Your task to perform on an android device: turn off translation in the chrome app Image 0: 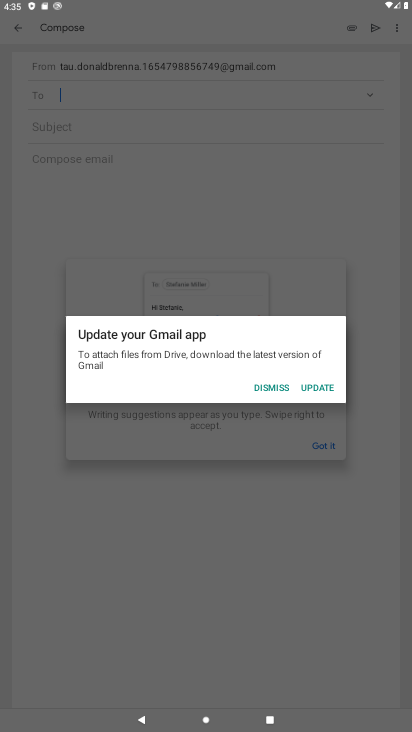
Step 0: press home button
Your task to perform on an android device: turn off translation in the chrome app Image 1: 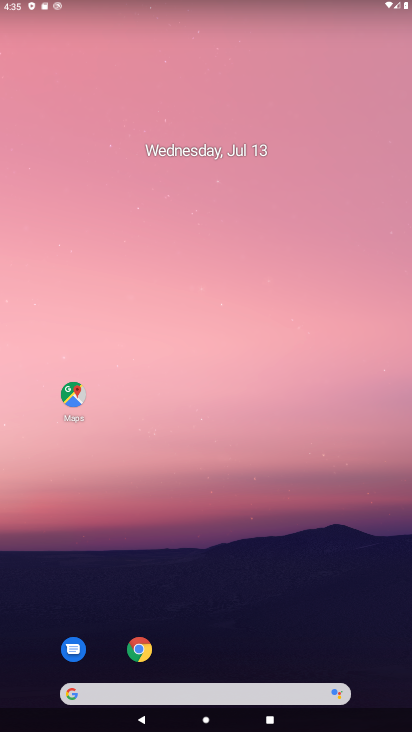
Step 1: drag from (334, 615) to (250, 138)
Your task to perform on an android device: turn off translation in the chrome app Image 2: 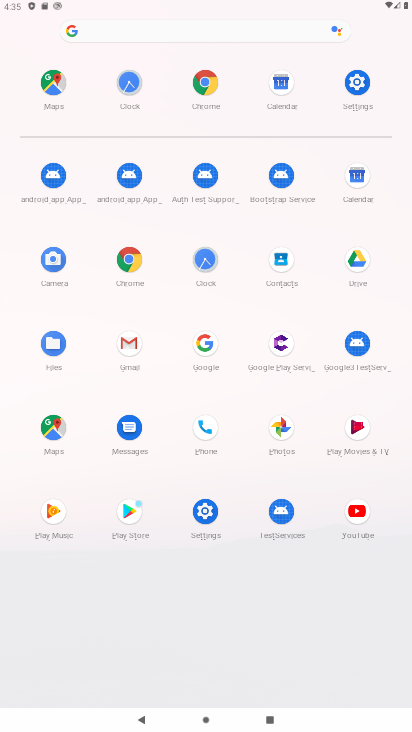
Step 2: click (197, 85)
Your task to perform on an android device: turn off translation in the chrome app Image 3: 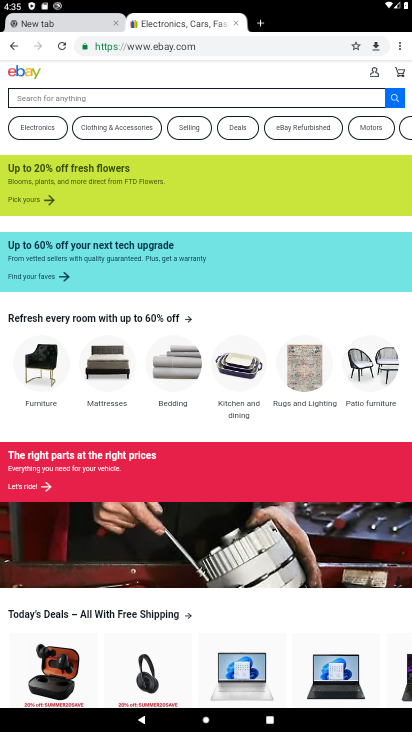
Step 3: drag from (402, 41) to (311, 305)
Your task to perform on an android device: turn off translation in the chrome app Image 4: 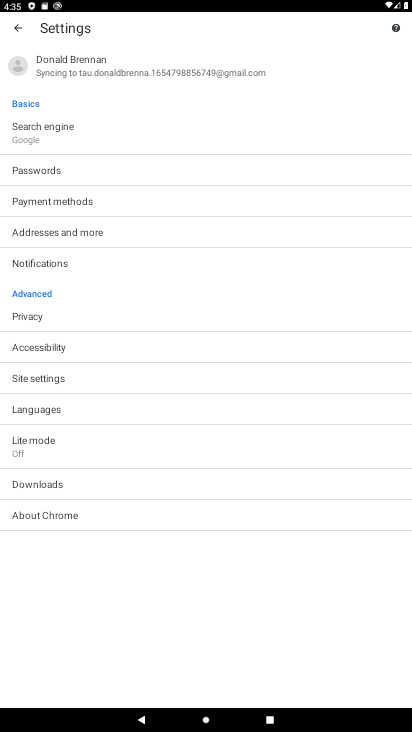
Step 4: click (61, 409)
Your task to perform on an android device: turn off translation in the chrome app Image 5: 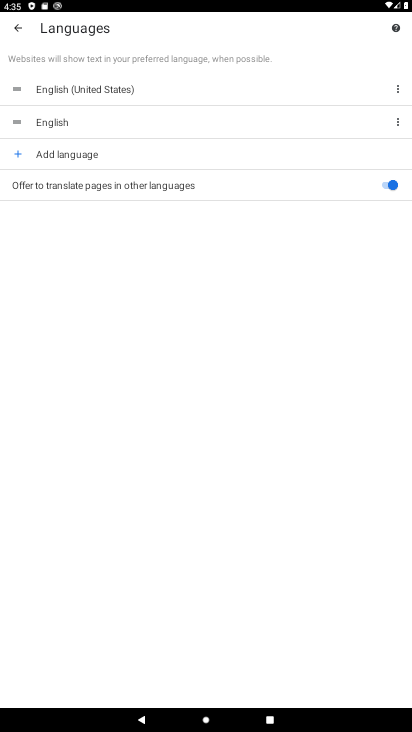
Step 5: click (379, 183)
Your task to perform on an android device: turn off translation in the chrome app Image 6: 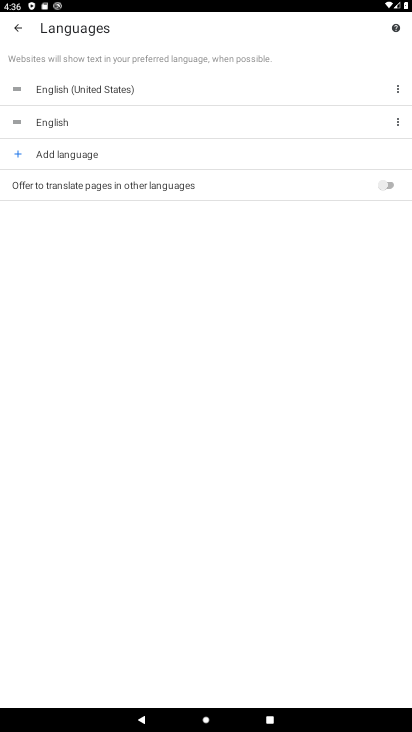
Step 6: task complete